Your task to perform on an android device: Search for "bose quietcomfort 35" on costco.com, select the first entry, add it to the cart, then select checkout. Image 0: 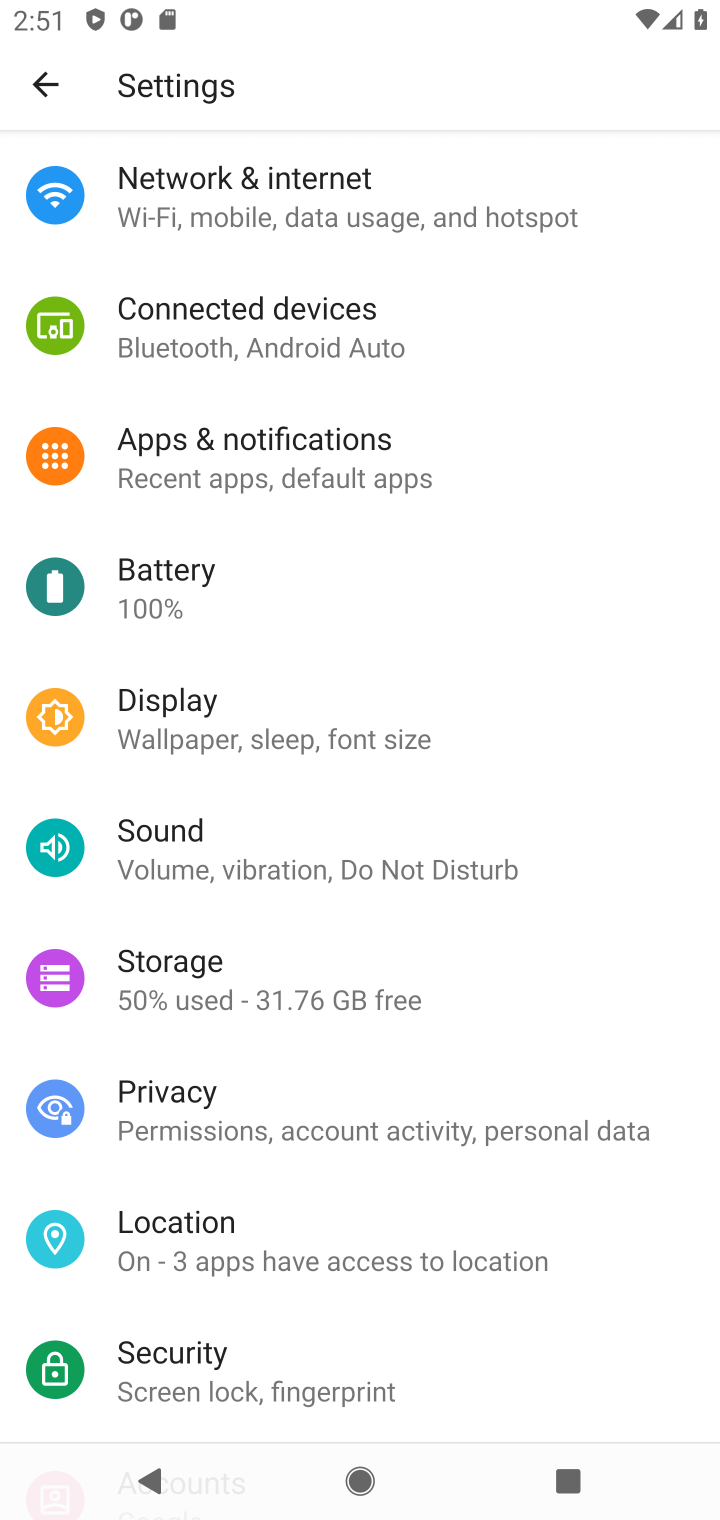
Step 0: press home button
Your task to perform on an android device: Search for "bose quietcomfort 35" on costco.com, select the first entry, add it to the cart, then select checkout. Image 1: 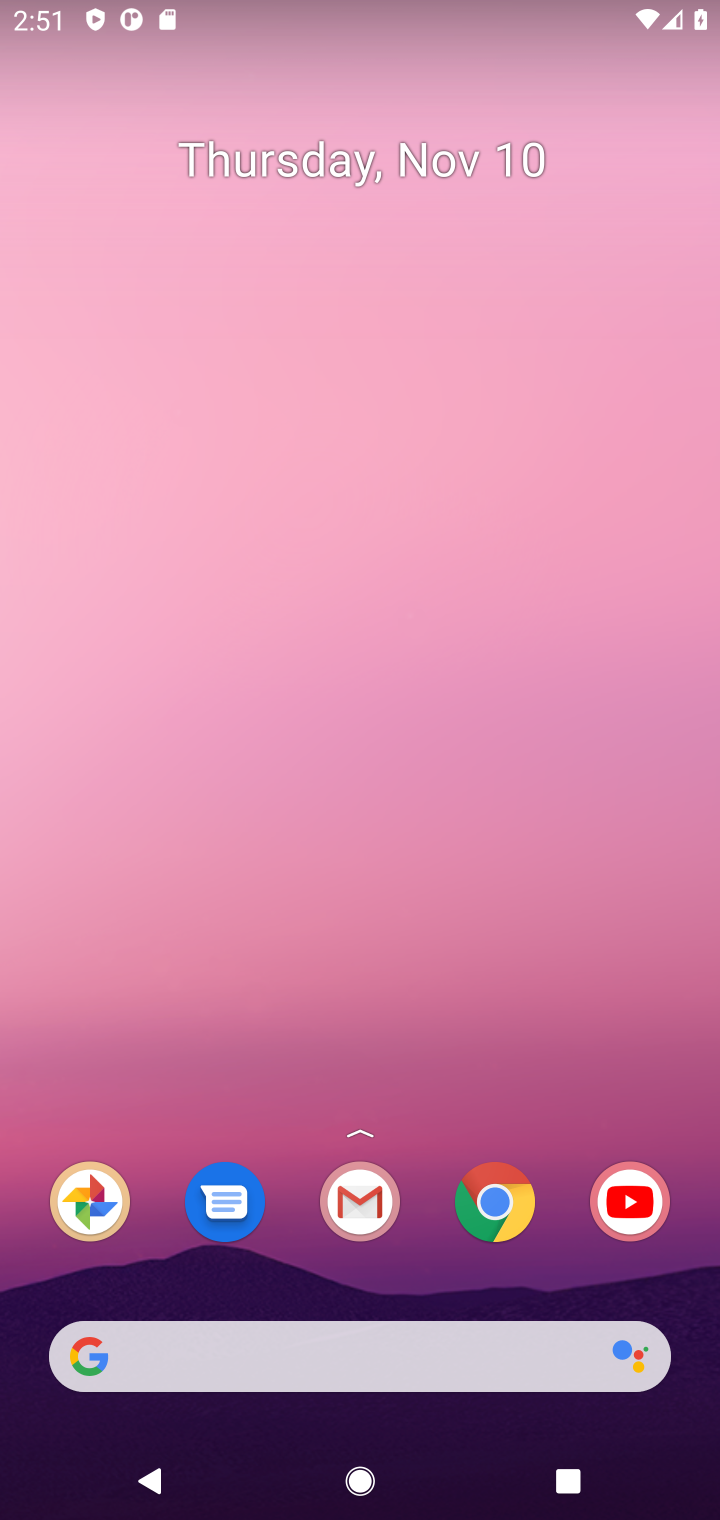
Step 1: click (478, 1201)
Your task to perform on an android device: Search for "bose quietcomfort 35" on costco.com, select the first entry, add it to the cart, then select checkout. Image 2: 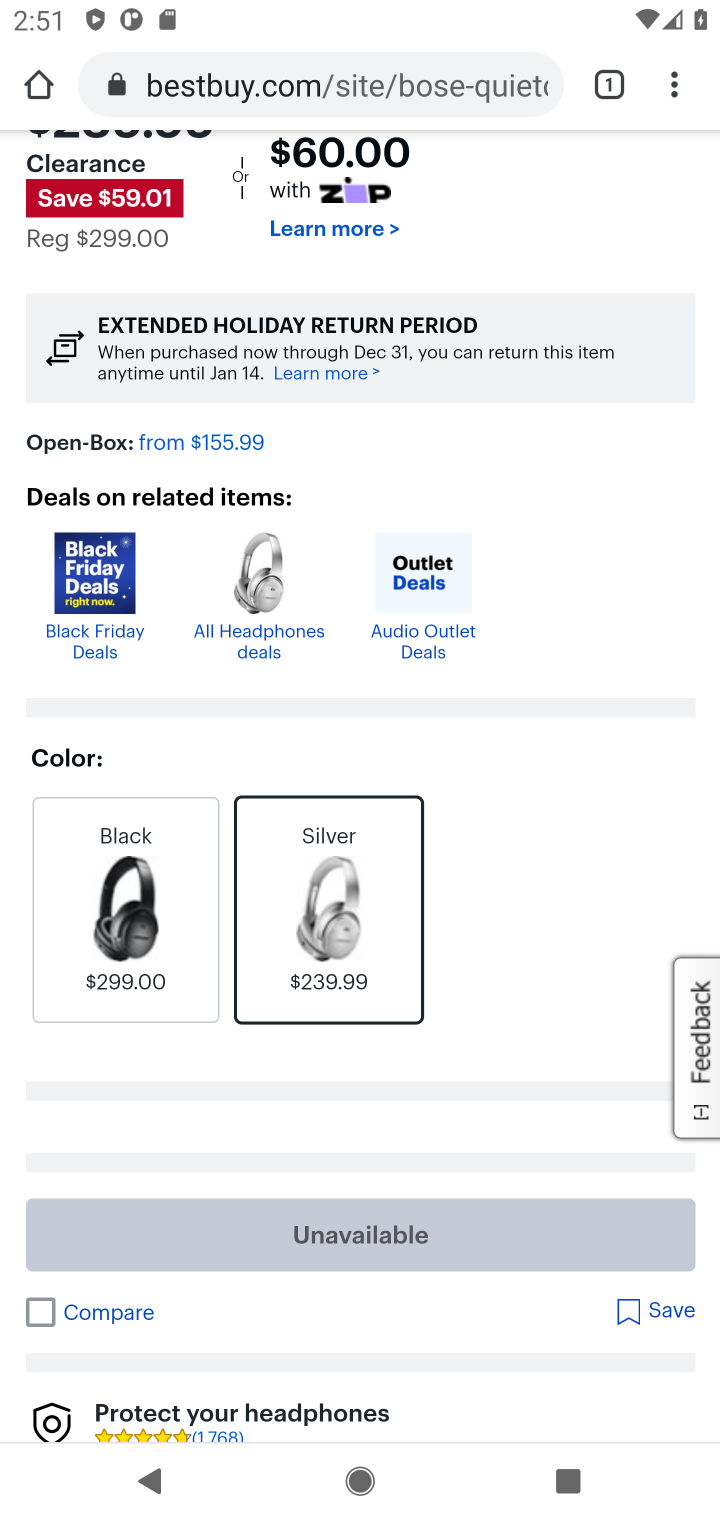
Step 2: click (448, 72)
Your task to perform on an android device: Search for "bose quietcomfort 35" on costco.com, select the first entry, add it to the cart, then select checkout. Image 3: 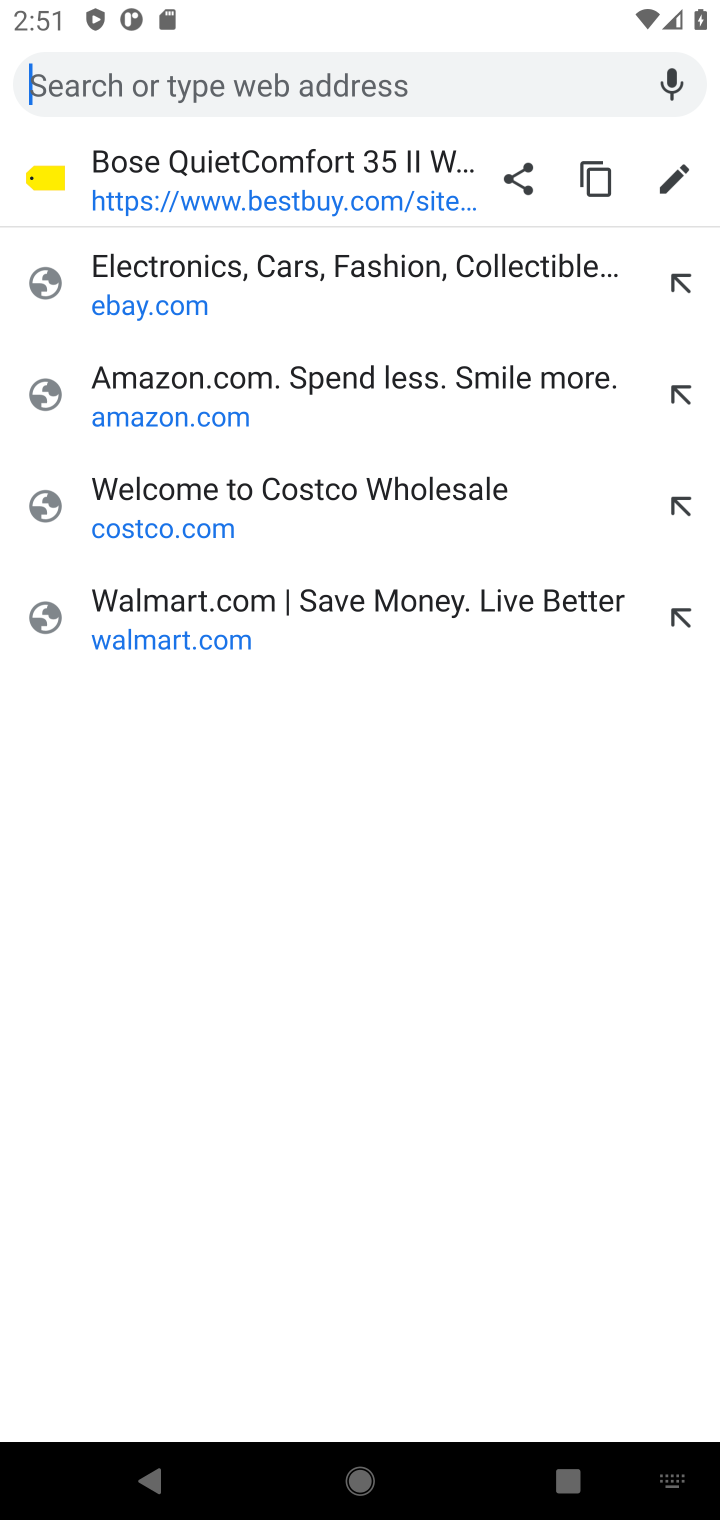
Step 3: click (311, 493)
Your task to perform on an android device: Search for "bose quietcomfort 35" on costco.com, select the first entry, add it to the cart, then select checkout. Image 4: 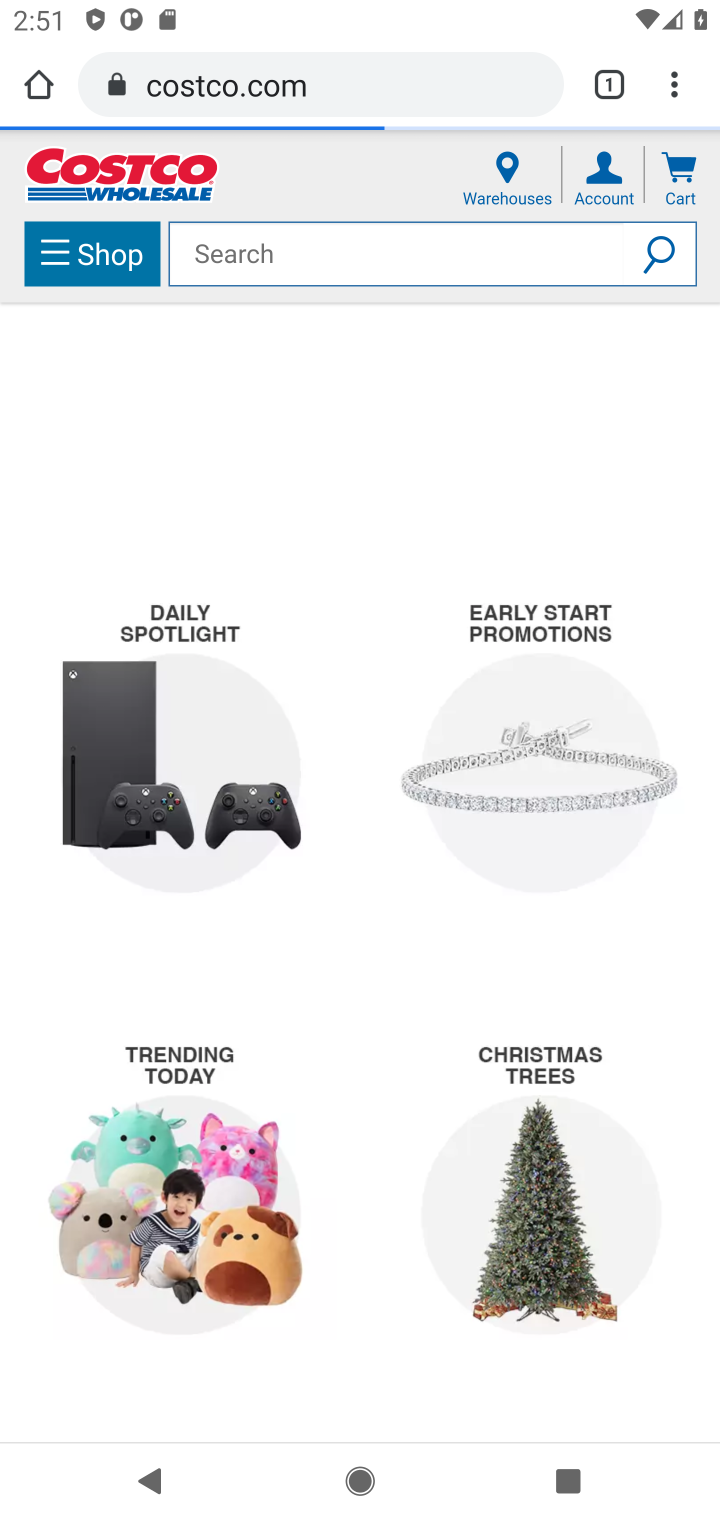
Step 4: click (494, 256)
Your task to perform on an android device: Search for "bose quietcomfort 35" on costco.com, select the first entry, add it to the cart, then select checkout. Image 5: 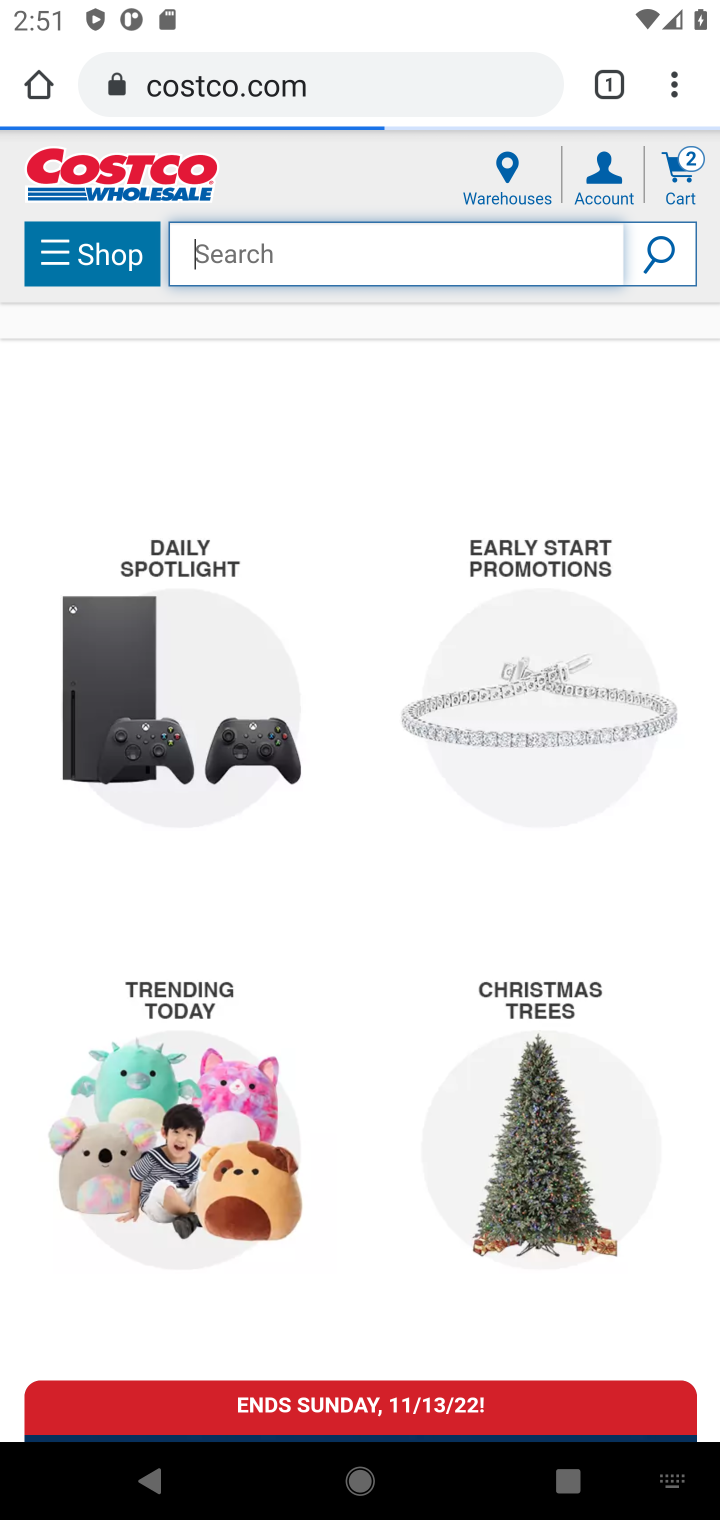
Step 5: press enter
Your task to perform on an android device: Search for "bose quietcomfort 35" on costco.com, select the first entry, add it to the cart, then select checkout. Image 6: 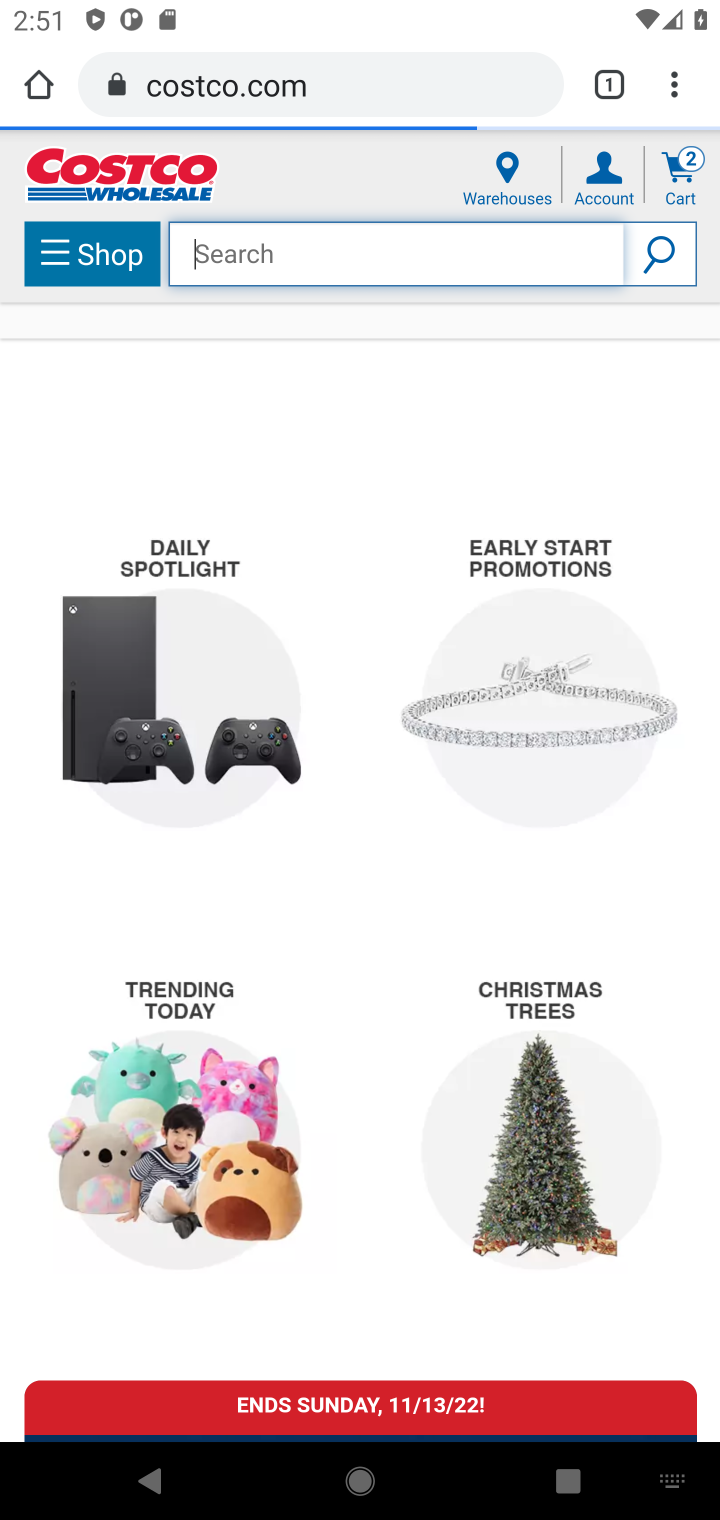
Step 6: type "bose quietcomfort 35"
Your task to perform on an android device: Search for "bose quietcomfort 35" on costco.com, select the first entry, add it to the cart, then select checkout. Image 7: 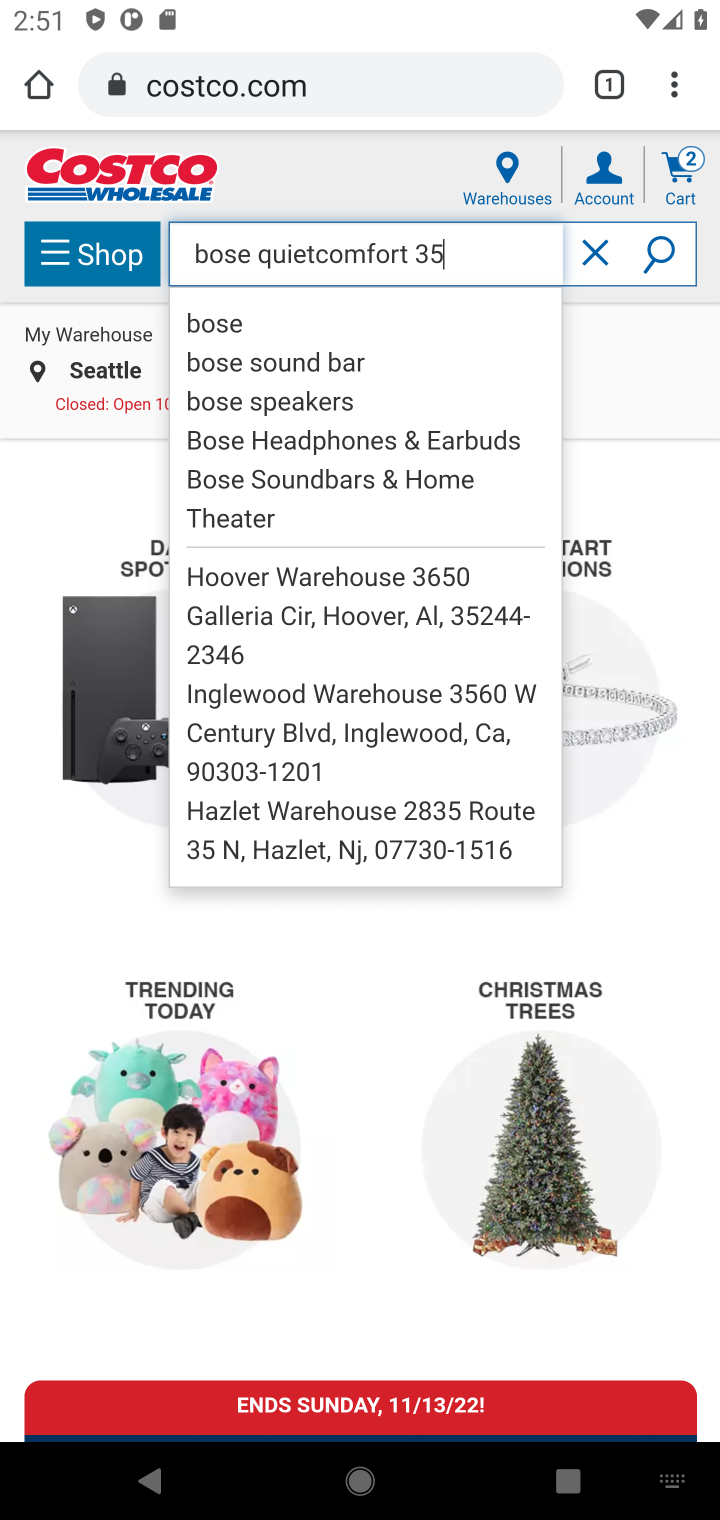
Step 7: click (645, 347)
Your task to perform on an android device: Search for "bose quietcomfort 35" on costco.com, select the first entry, add it to the cart, then select checkout. Image 8: 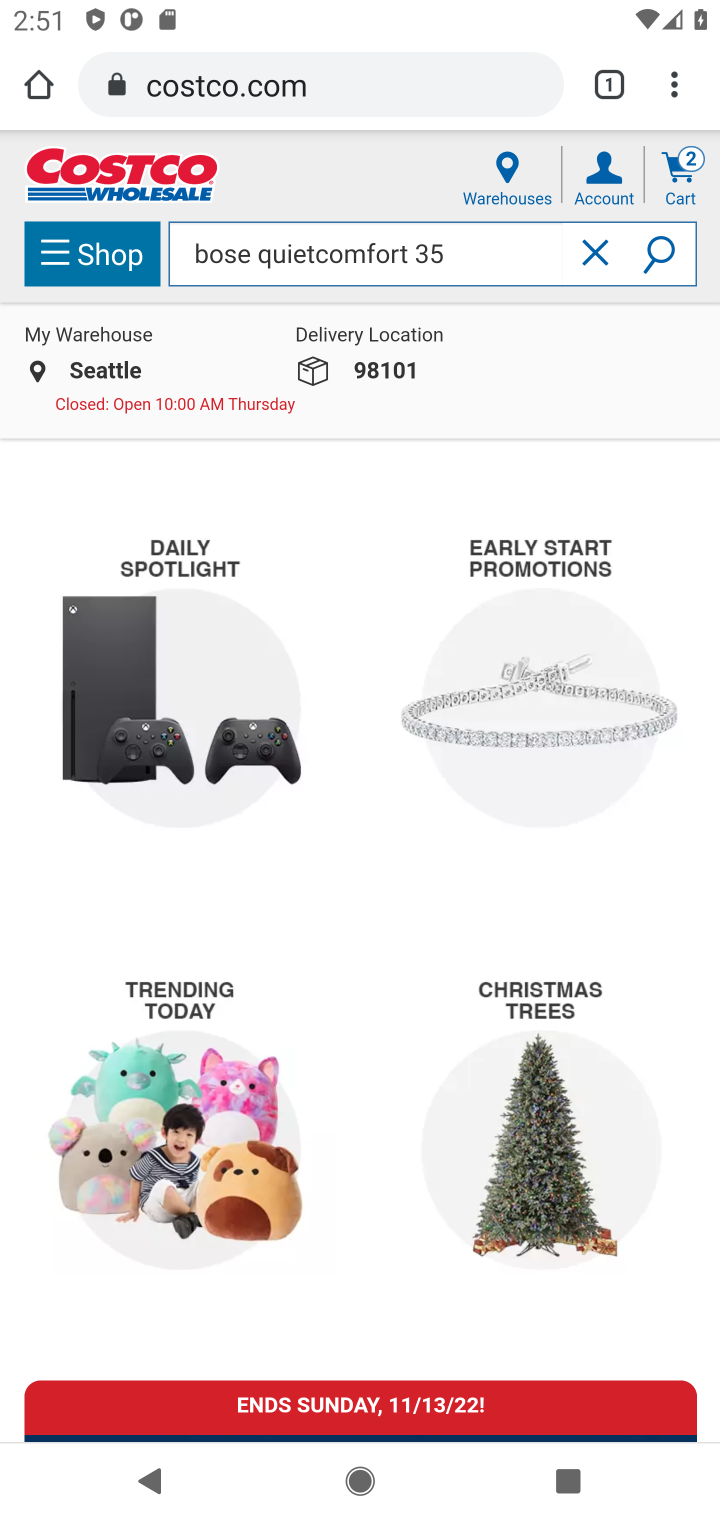
Step 8: click (584, 352)
Your task to perform on an android device: Search for "bose quietcomfort 35" on costco.com, select the first entry, add it to the cart, then select checkout. Image 9: 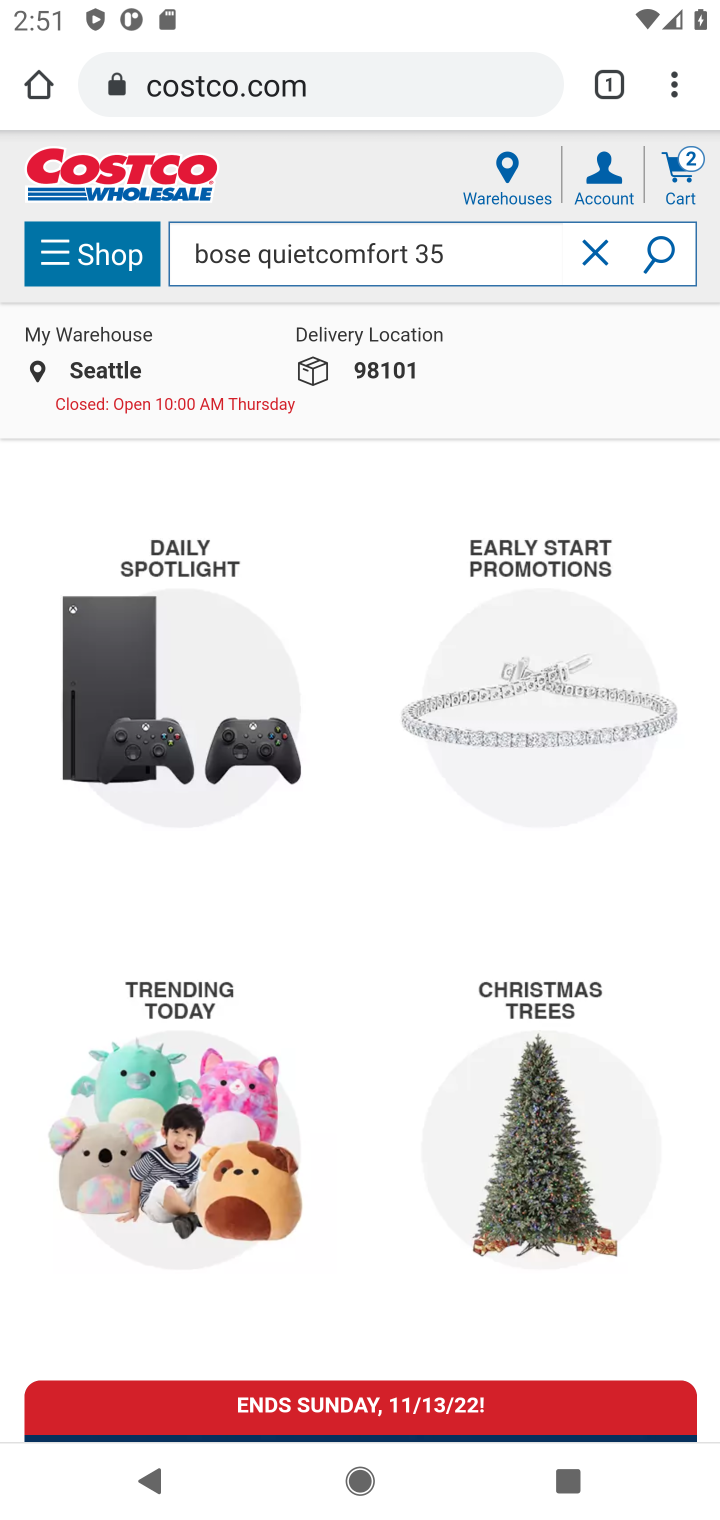
Step 9: task complete